Your task to perform on an android device: turn on bluetooth scan Image 0: 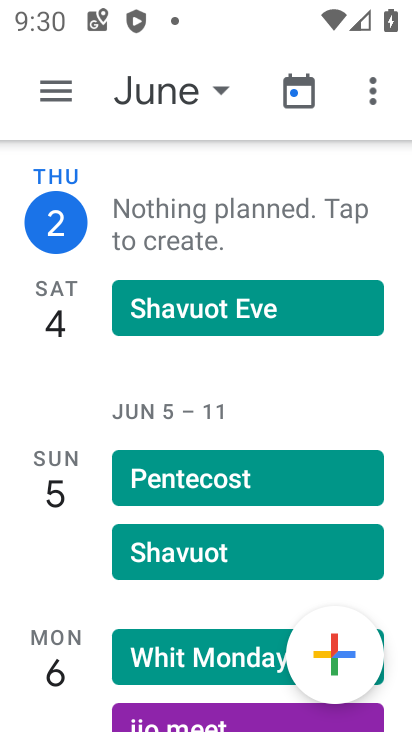
Step 0: press home button
Your task to perform on an android device: turn on bluetooth scan Image 1: 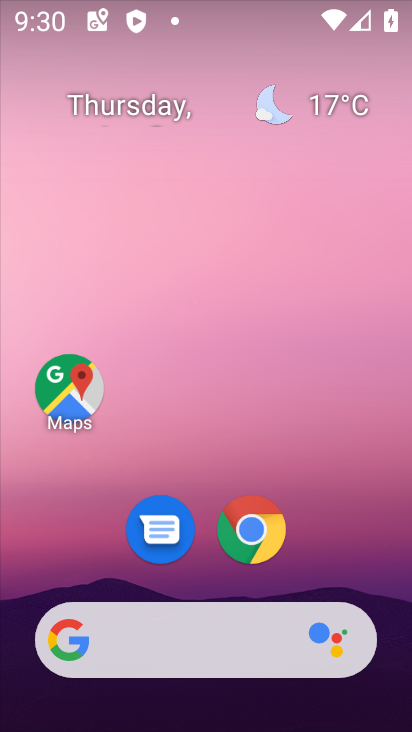
Step 1: drag from (90, 601) to (218, 77)
Your task to perform on an android device: turn on bluetooth scan Image 2: 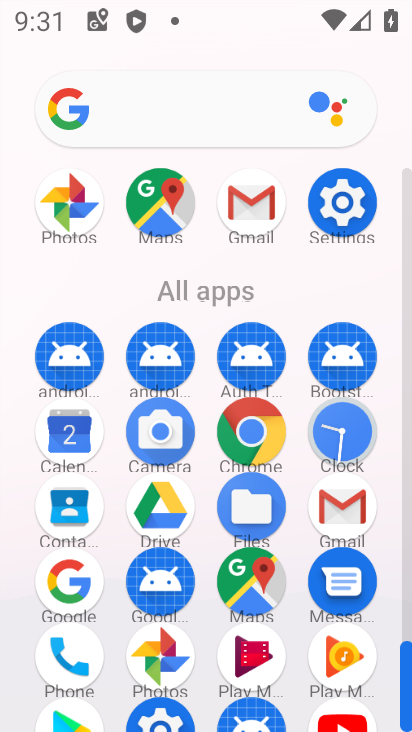
Step 2: click (345, 198)
Your task to perform on an android device: turn on bluetooth scan Image 3: 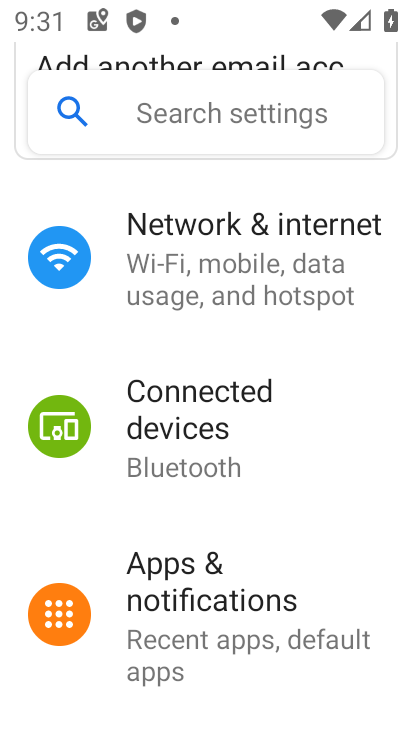
Step 3: click (216, 457)
Your task to perform on an android device: turn on bluetooth scan Image 4: 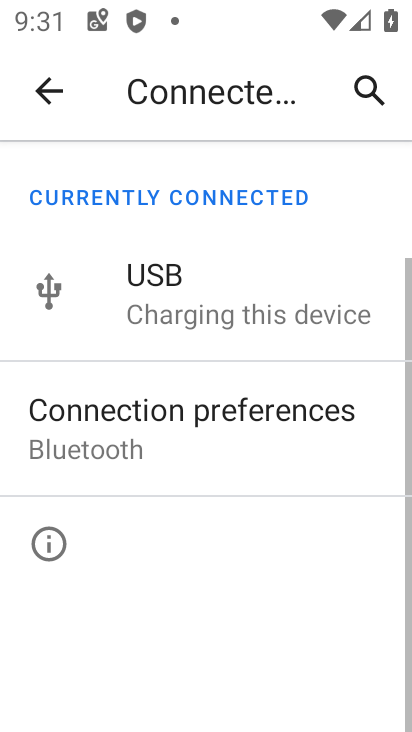
Step 4: click (216, 451)
Your task to perform on an android device: turn on bluetooth scan Image 5: 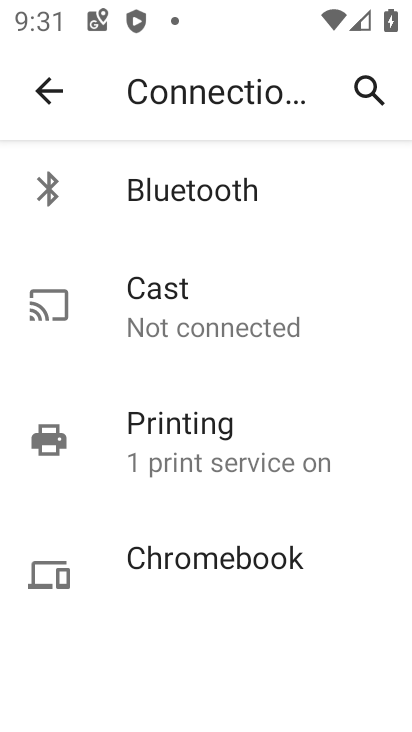
Step 5: click (284, 187)
Your task to perform on an android device: turn on bluetooth scan Image 6: 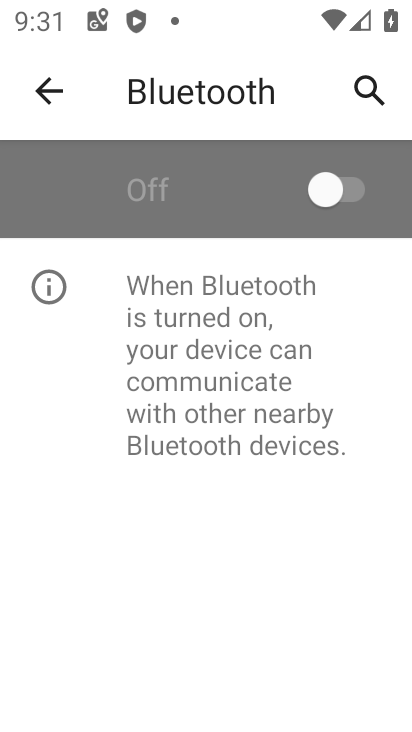
Step 6: click (371, 191)
Your task to perform on an android device: turn on bluetooth scan Image 7: 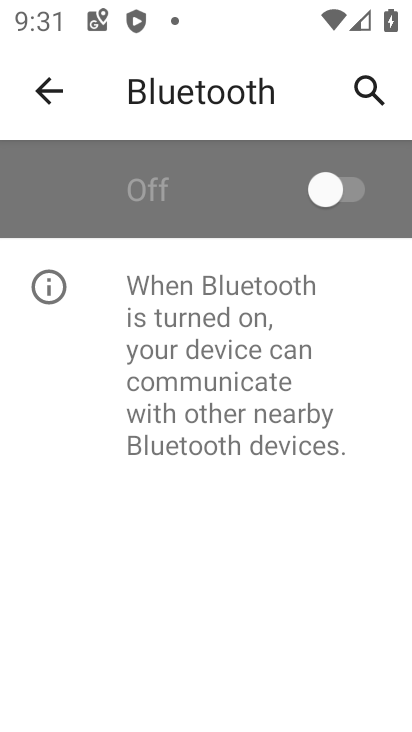
Step 7: click (371, 191)
Your task to perform on an android device: turn on bluetooth scan Image 8: 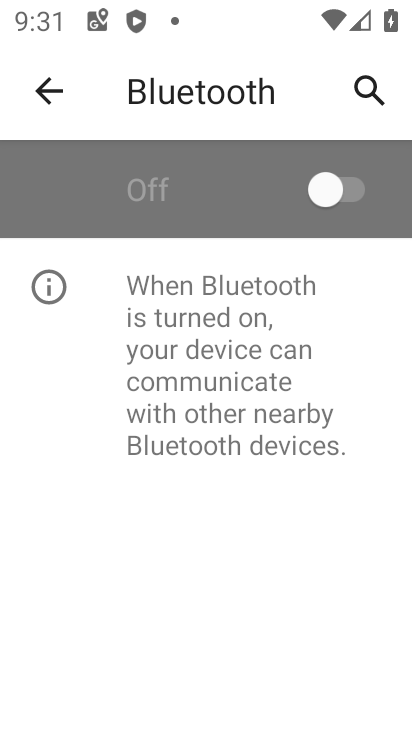
Step 8: click (371, 191)
Your task to perform on an android device: turn on bluetooth scan Image 9: 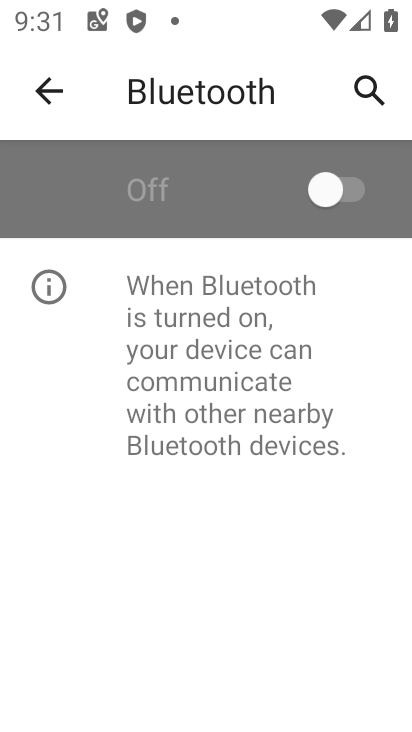
Step 9: task complete